Your task to perform on an android device: open app "LiveIn - Share Your Moment" (install if not already installed) Image 0: 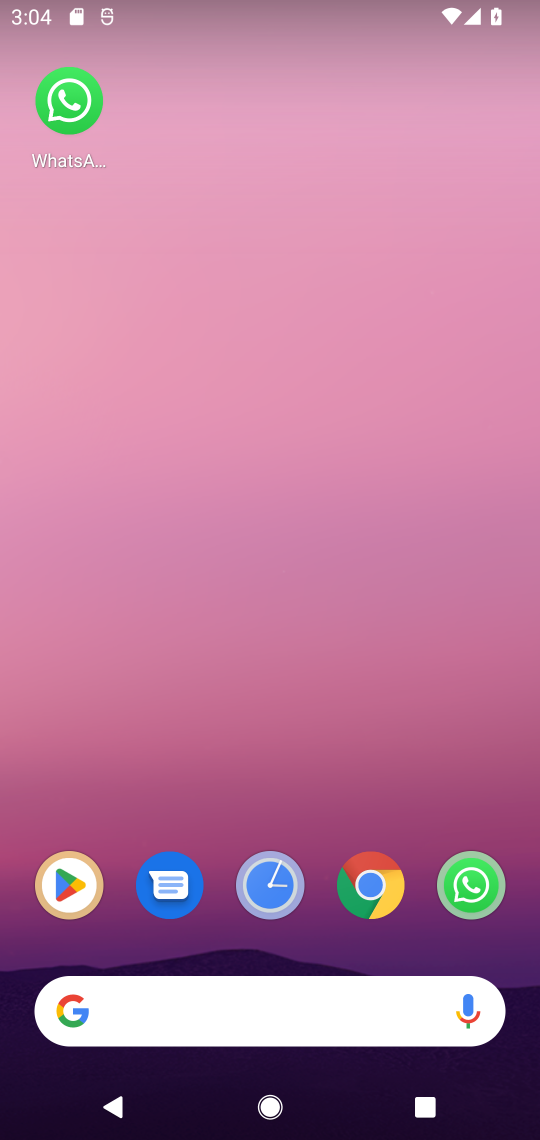
Step 0: click (81, 894)
Your task to perform on an android device: open app "LiveIn - Share Your Moment" (install if not already installed) Image 1: 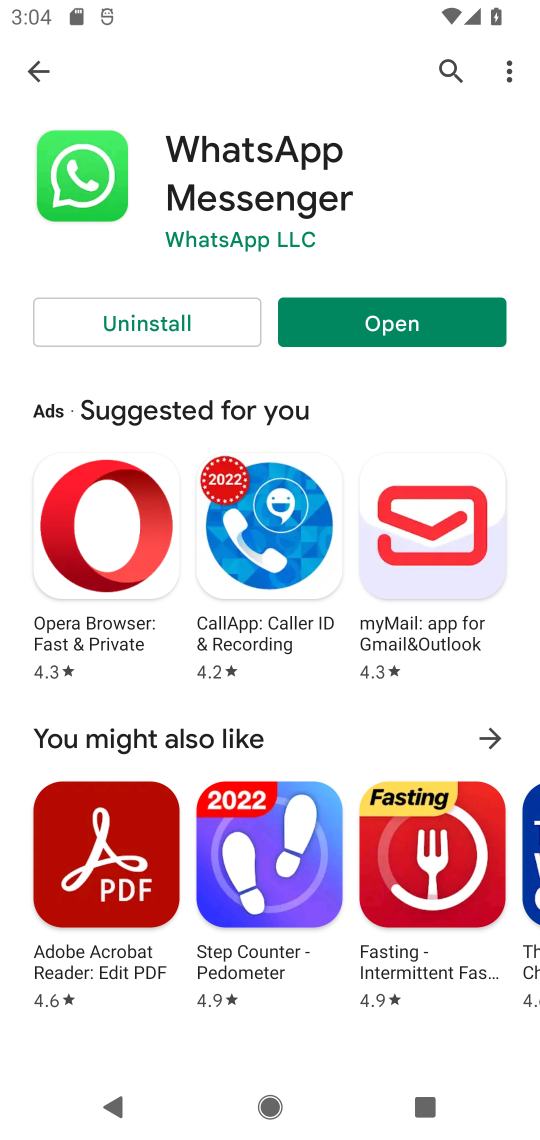
Step 1: drag from (1, 1053) to (428, 1111)
Your task to perform on an android device: open app "LiveIn - Share Your Moment" (install if not already installed) Image 2: 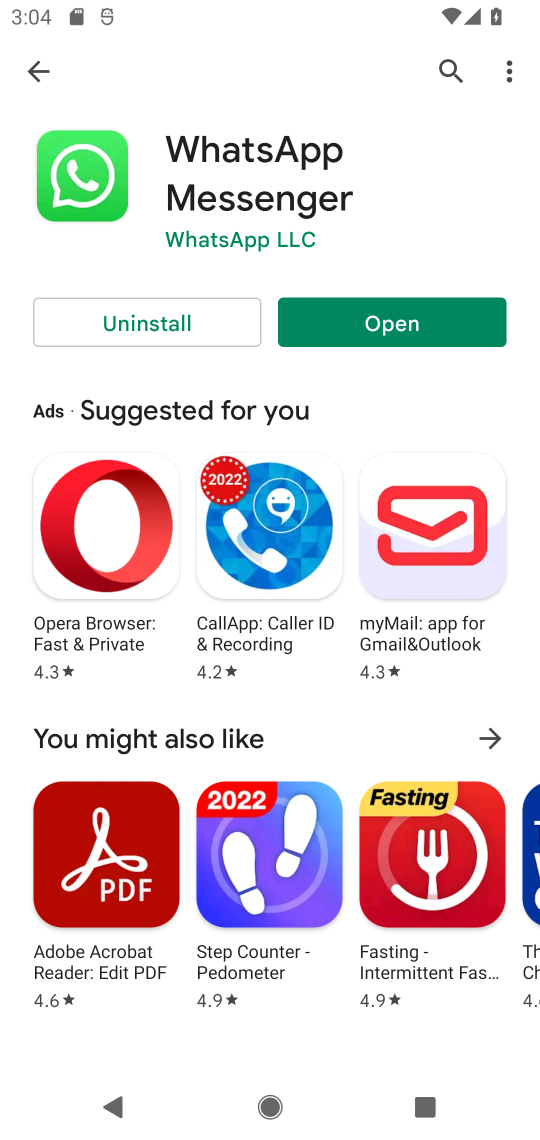
Step 2: type "LiveIn - Share Your Moment"
Your task to perform on an android device: open app "LiveIn - Share Your Moment" (install if not already installed) Image 3: 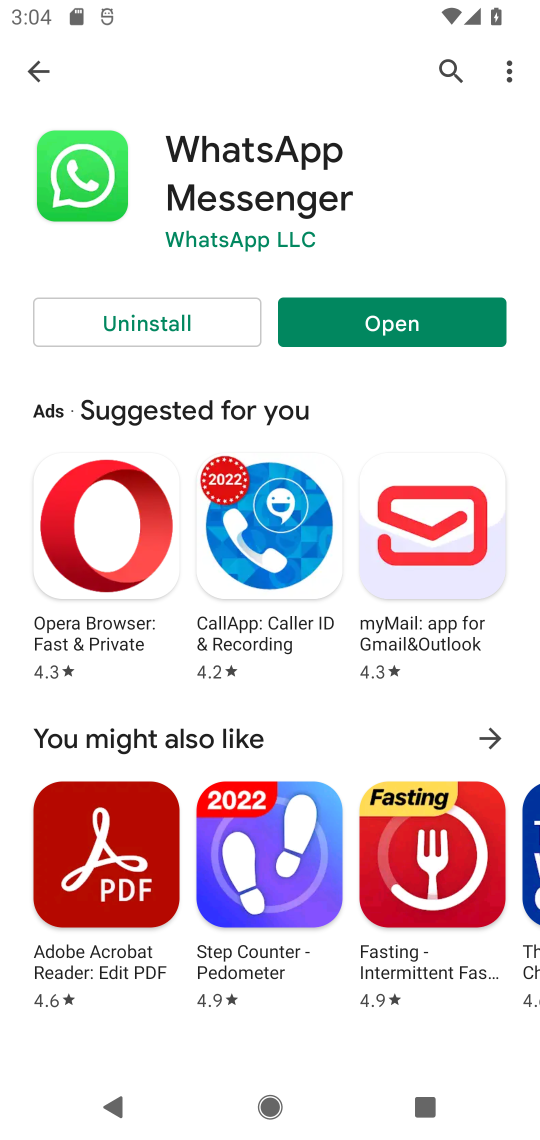
Step 3: click (452, 64)
Your task to perform on an android device: open app "LiveIn - Share Your Moment" (install if not already installed) Image 4: 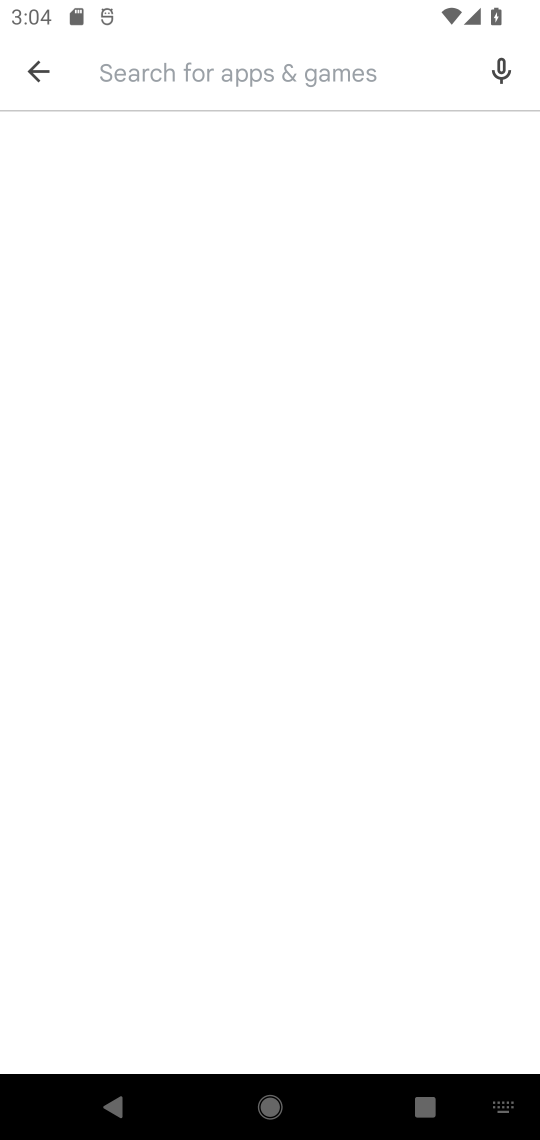
Step 4: click (318, 61)
Your task to perform on an android device: open app "LiveIn - Share Your Moment" (install if not already installed) Image 5: 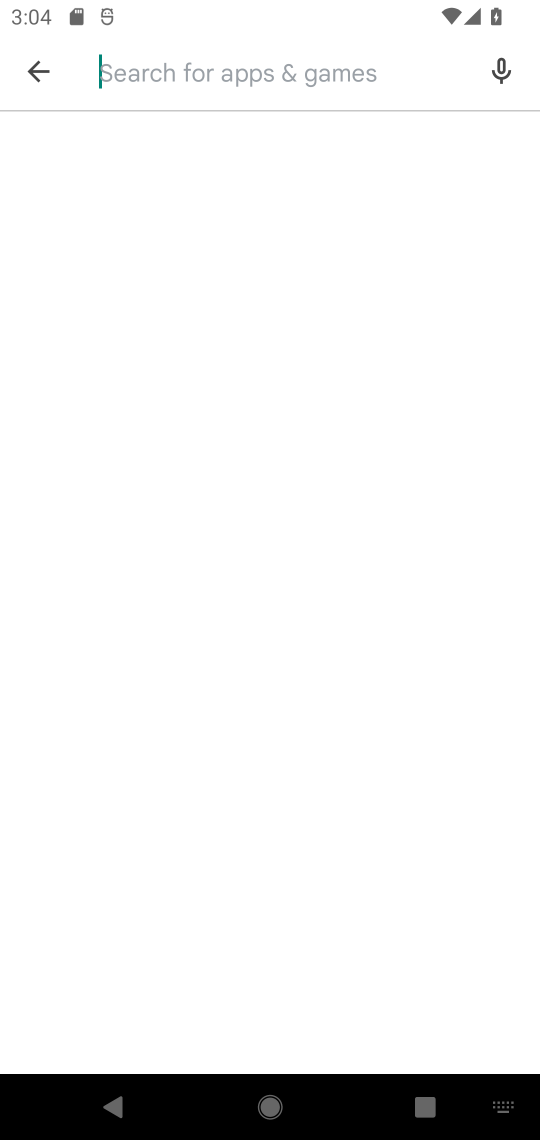
Step 5: type "LiveIn - Share Your Moment"
Your task to perform on an android device: open app "LiveIn - Share Your Moment" (install if not already installed) Image 6: 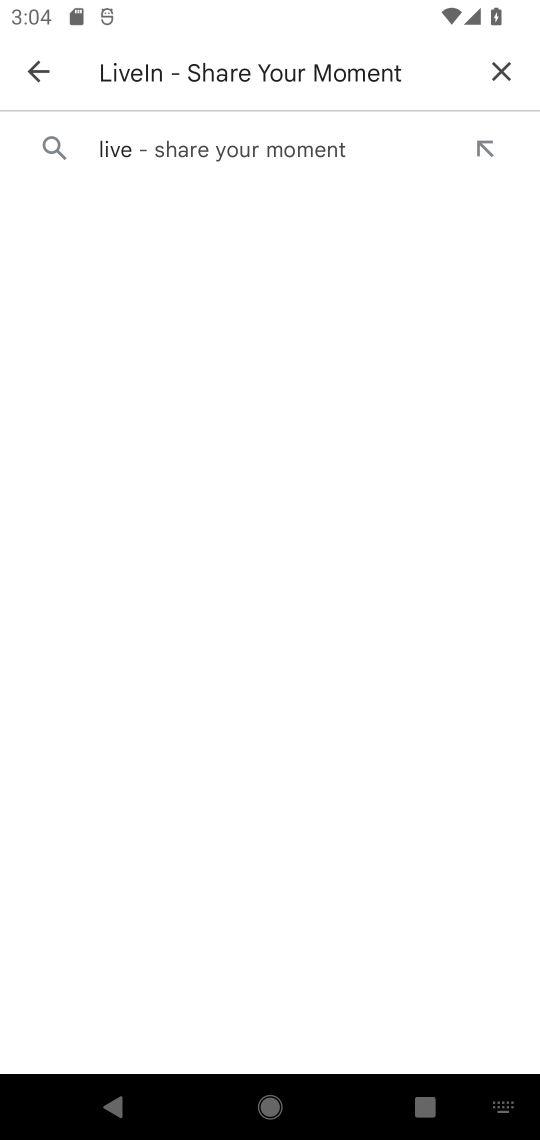
Step 6: click (219, 161)
Your task to perform on an android device: open app "LiveIn - Share Your Moment" (install if not already installed) Image 7: 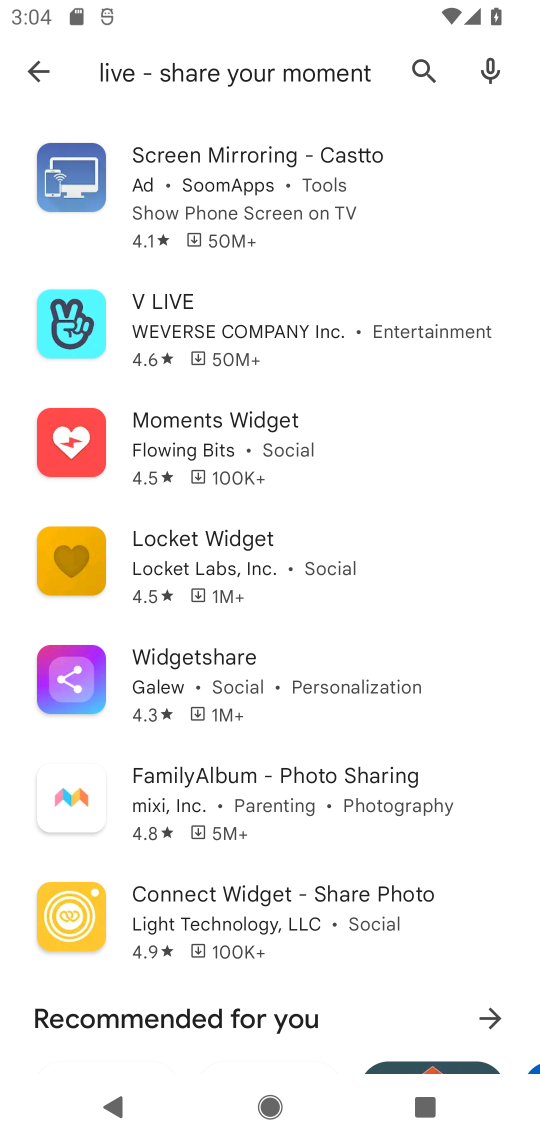
Step 7: task complete